Your task to perform on an android device: Go to Google Image 0: 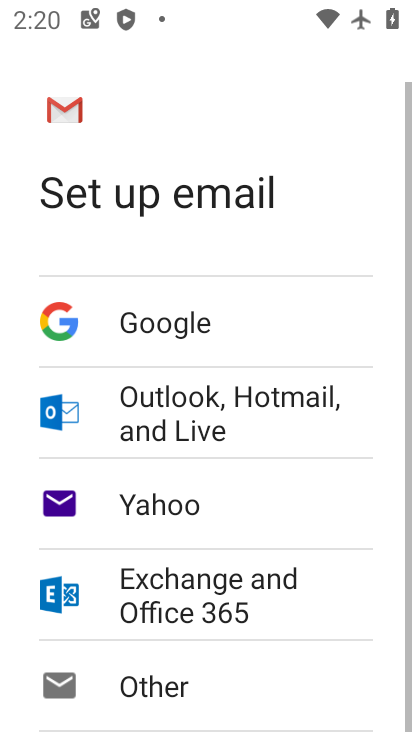
Step 0: press home button
Your task to perform on an android device: Go to Google Image 1: 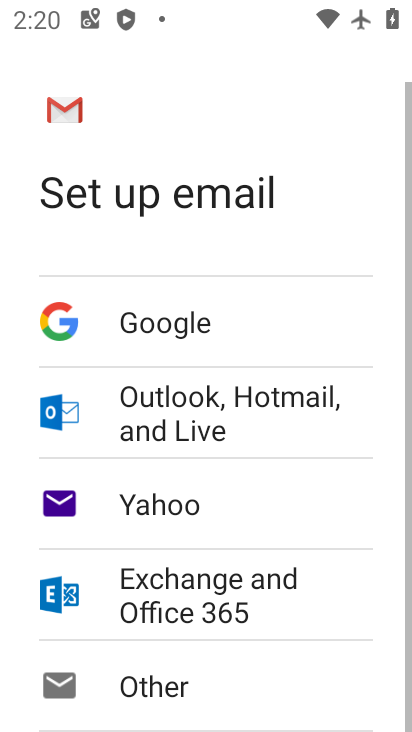
Step 1: press home button
Your task to perform on an android device: Go to Google Image 2: 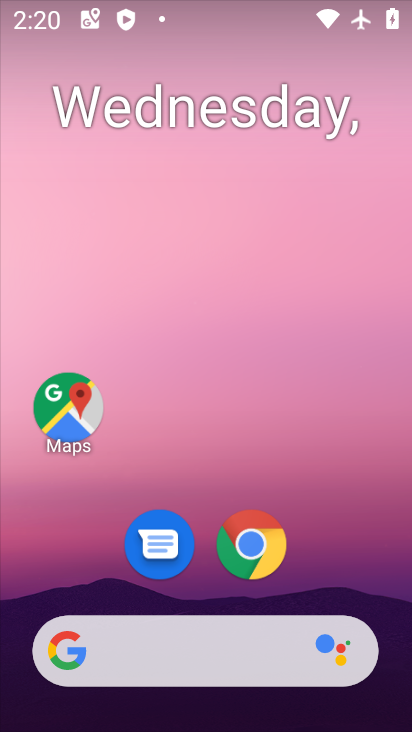
Step 2: click (265, 582)
Your task to perform on an android device: Go to Google Image 3: 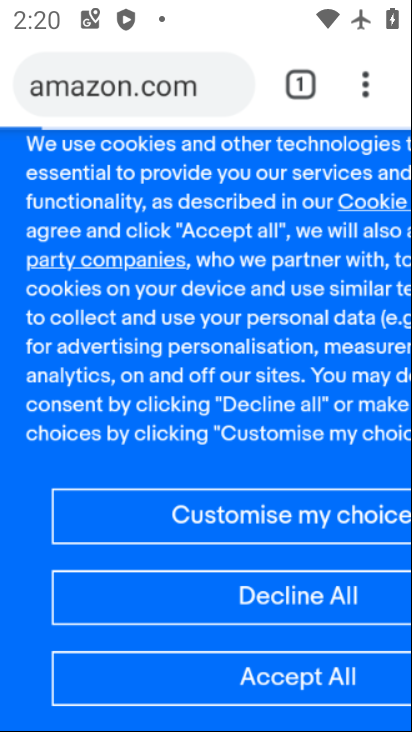
Step 3: click (208, 104)
Your task to perform on an android device: Go to Google Image 4: 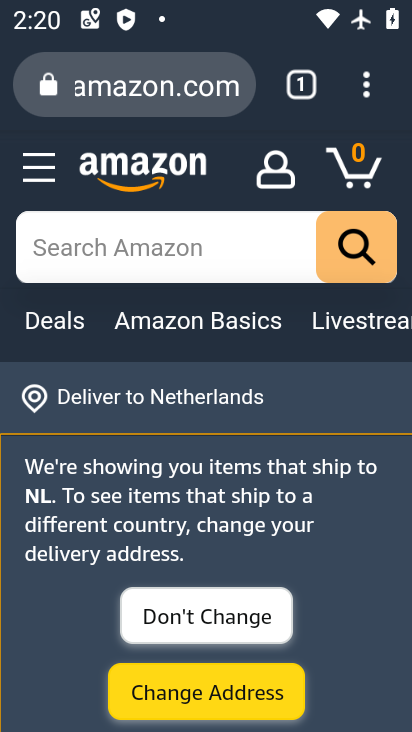
Step 4: click (193, 73)
Your task to perform on an android device: Go to Google Image 5: 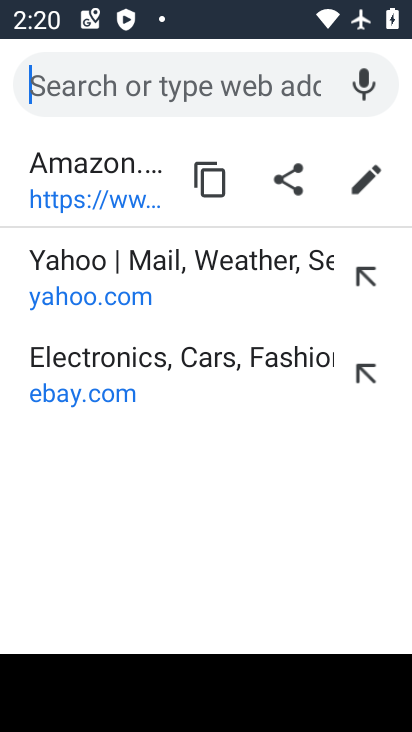
Step 5: type "google.com"
Your task to perform on an android device: Go to Google Image 6: 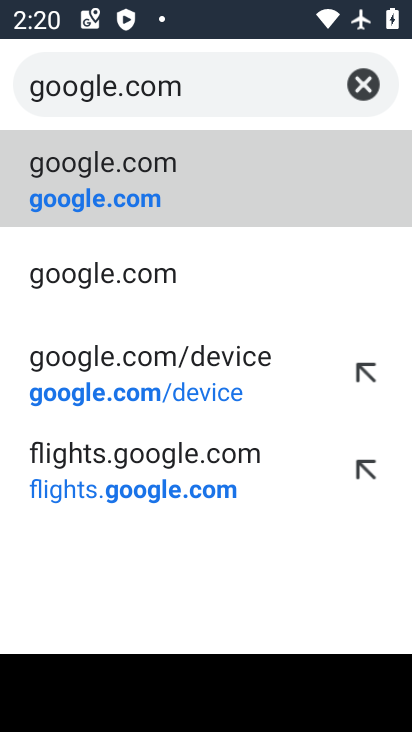
Step 6: click (199, 201)
Your task to perform on an android device: Go to Google Image 7: 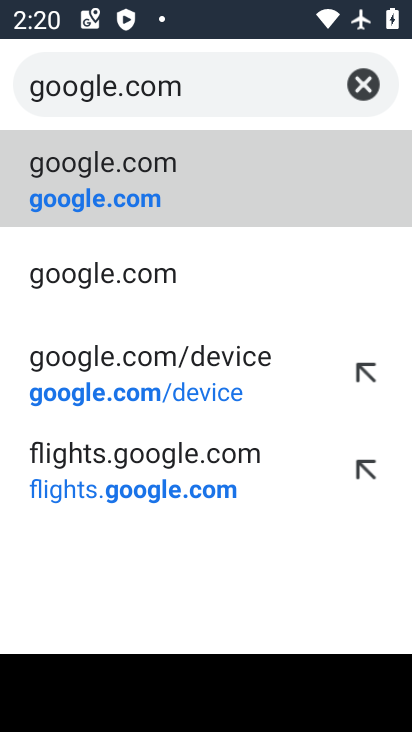
Step 7: click (199, 201)
Your task to perform on an android device: Go to Google Image 8: 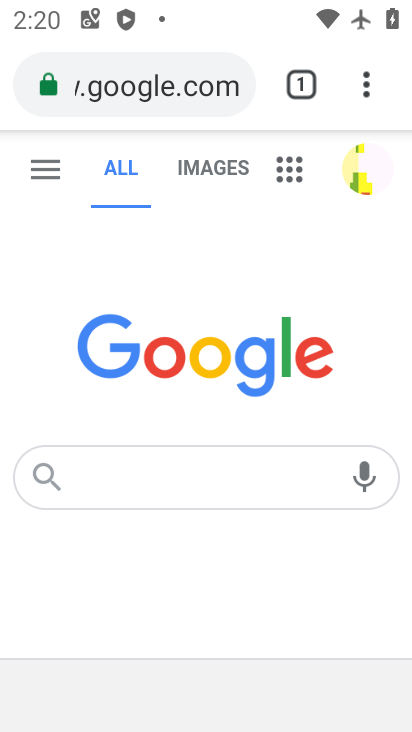
Step 8: task complete